Your task to perform on an android device: Play the last video I watched on Youtube Image 0: 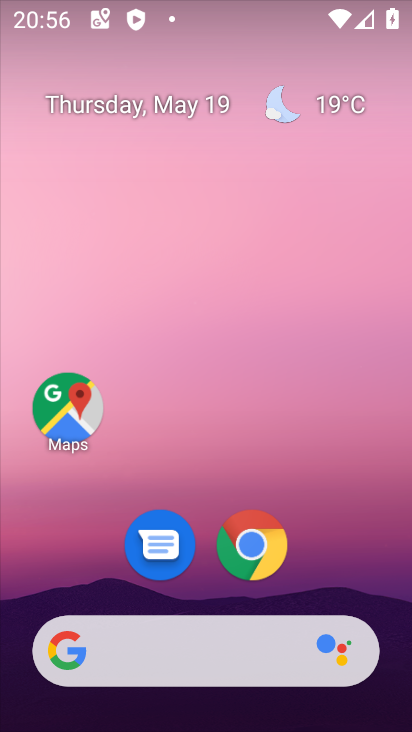
Step 0: drag from (354, 563) to (334, 102)
Your task to perform on an android device: Play the last video I watched on Youtube Image 1: 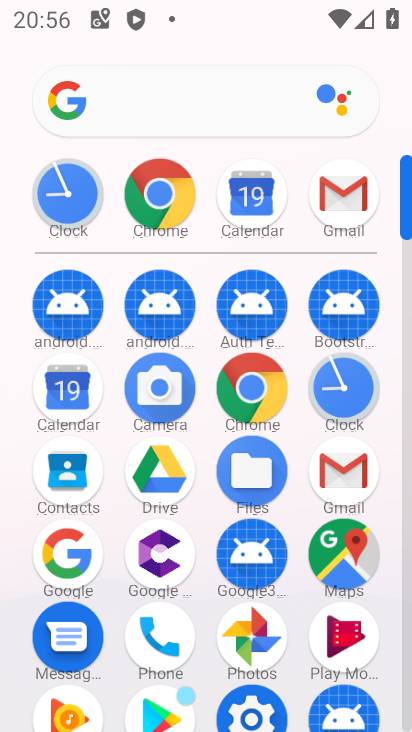
Step 1: click (405, 706)
Your task to perform on an android device: Play the last video I watched on Youtube Image 2: 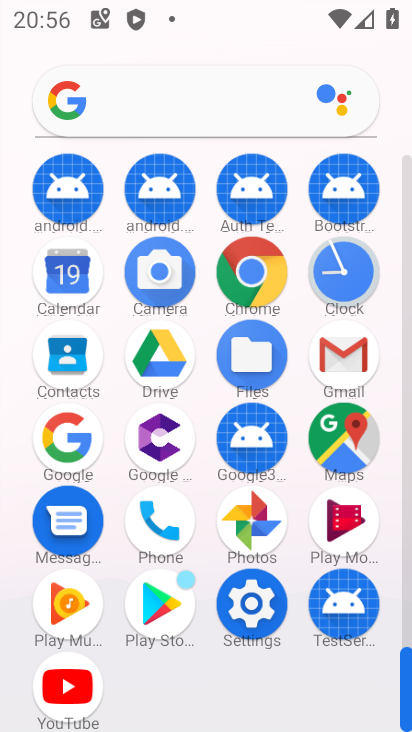
Step 2: click (405, 706)
Your task to perform on an android device: Play the last video I watched on Youtube Image 3: 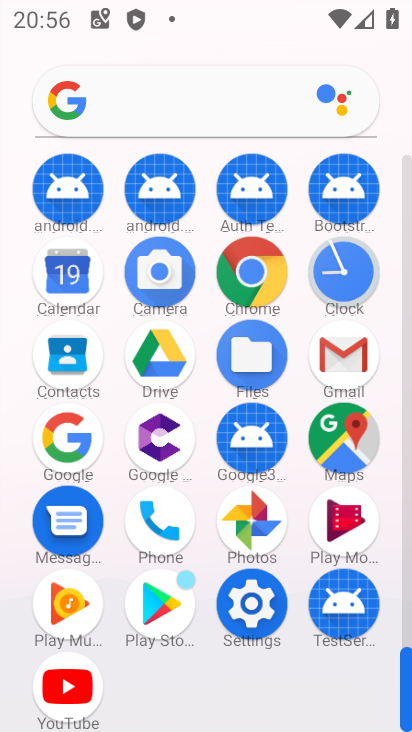
Step 3: click (75, 691)
Your task to perform on an android device: Play the last video I watched on Youtube Image 4: 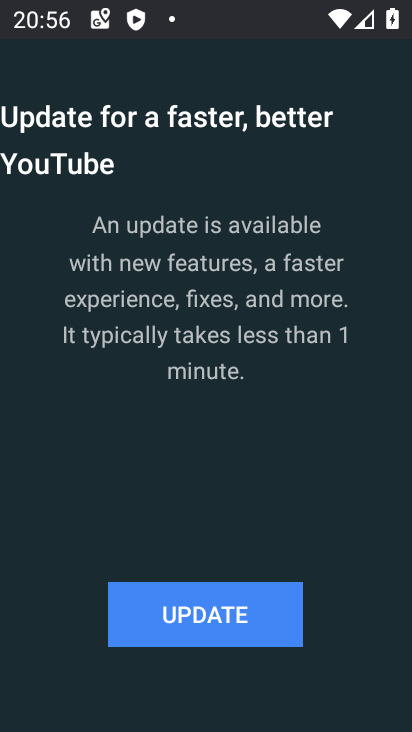
Step 4: click (157, 648)
Your task to perform on an android device: Play the last video I watched on Youtube Image 5: 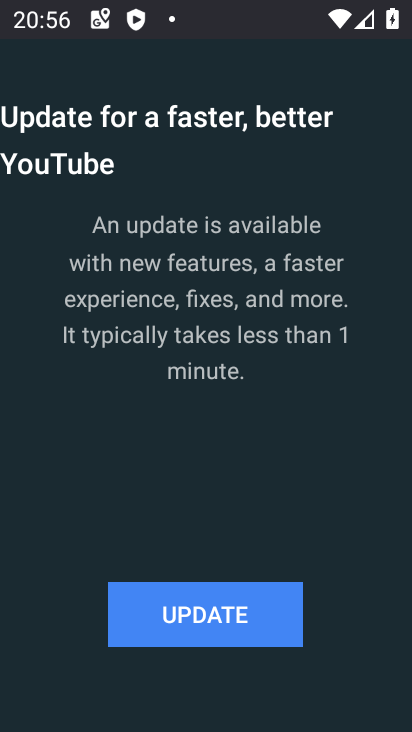
Step 5: click (186, 626)
Your task to perform on an android device: Play the last video I watched on Youtube Image 6: 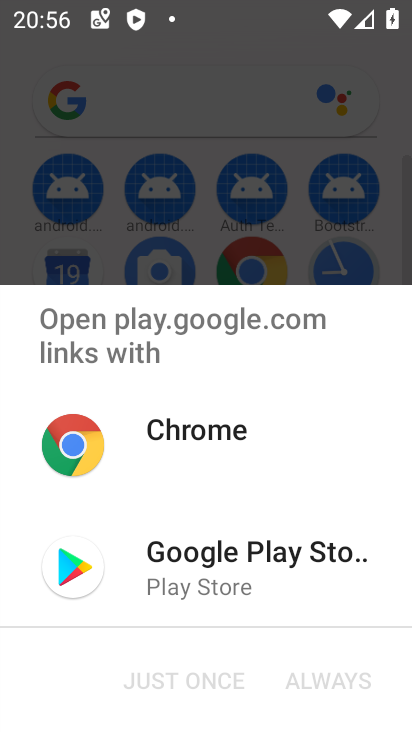
Step 6: click (261, 549)
Your task to perform on an android device: Play the last video I watched on Youtube Image 7: 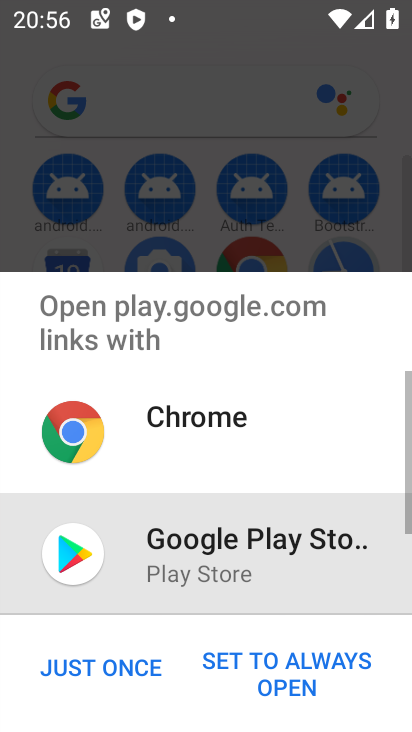
Step 7: click (117, 673)
Your task to perform on an android device: Play the last video I watched on Youtube Image 8: 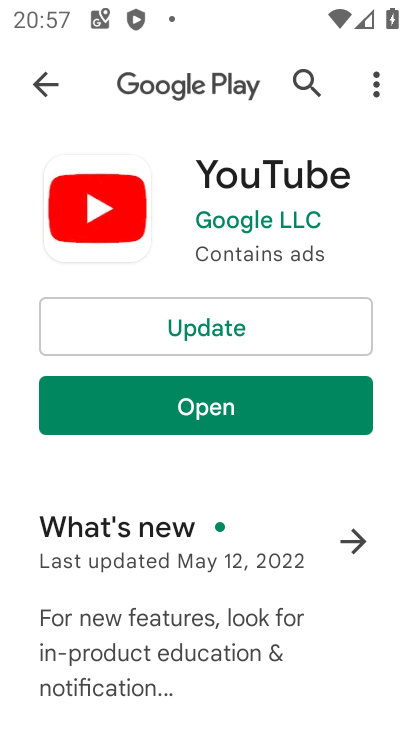
Step 8: click (215, 354)
Your task to perform on an android device: Play the last video I watched on Youtube Image 9: 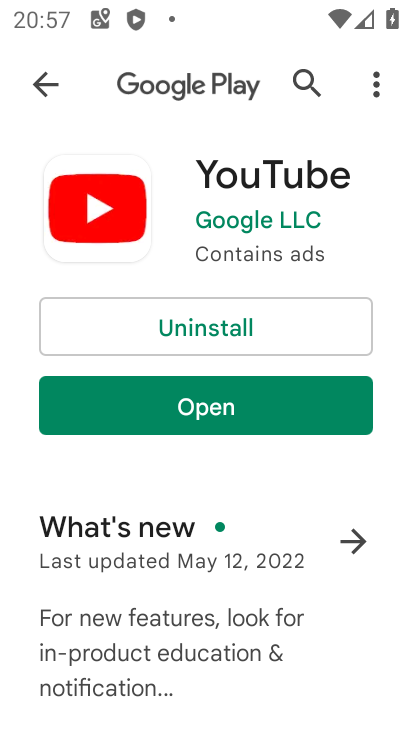
Step 9: click (227, 426)
Your task to perform on an android device: Play the last video I watched on Youtube Image 10: 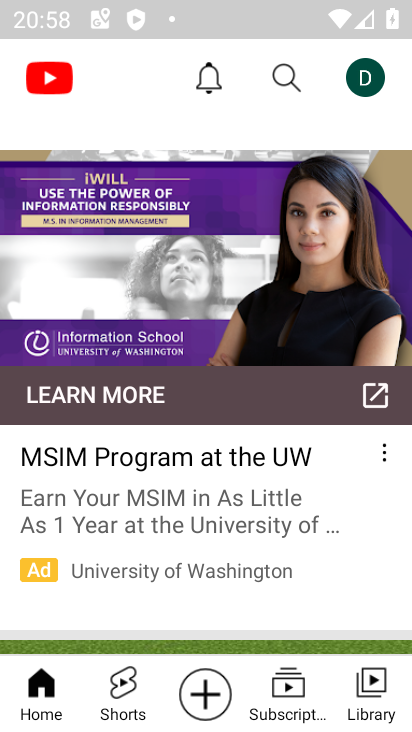
Step 10: click (358, 703)
Your task to perform on an android device: Play the last video I watched on Youtube Image 11: 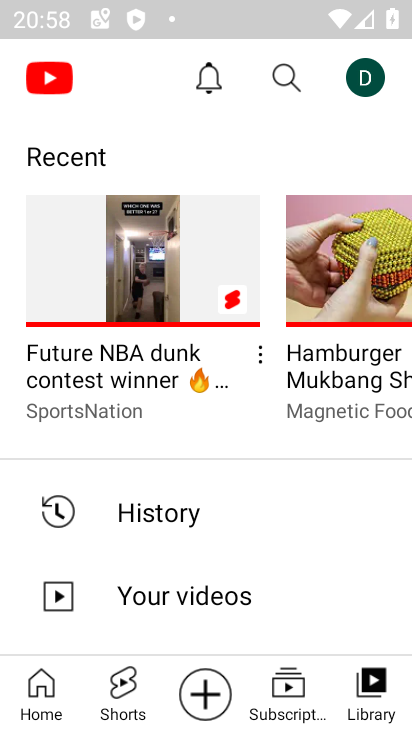
Step 11: task complete